Your task to perform on an android device: Go to wifi settings Image 0: 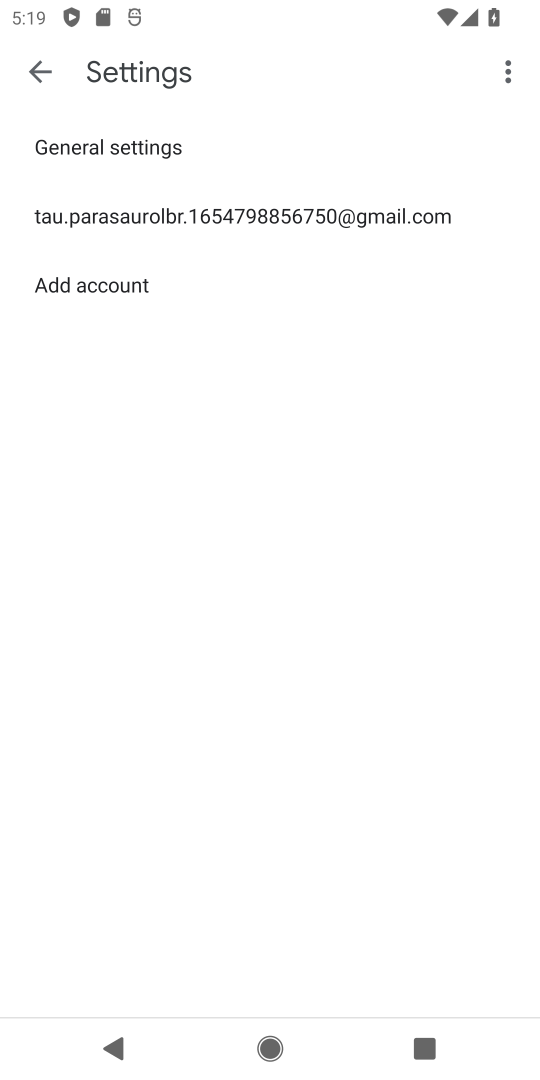
Step 0: press home button
Your task to perform on an android device: Go to wifi settings Image 1: 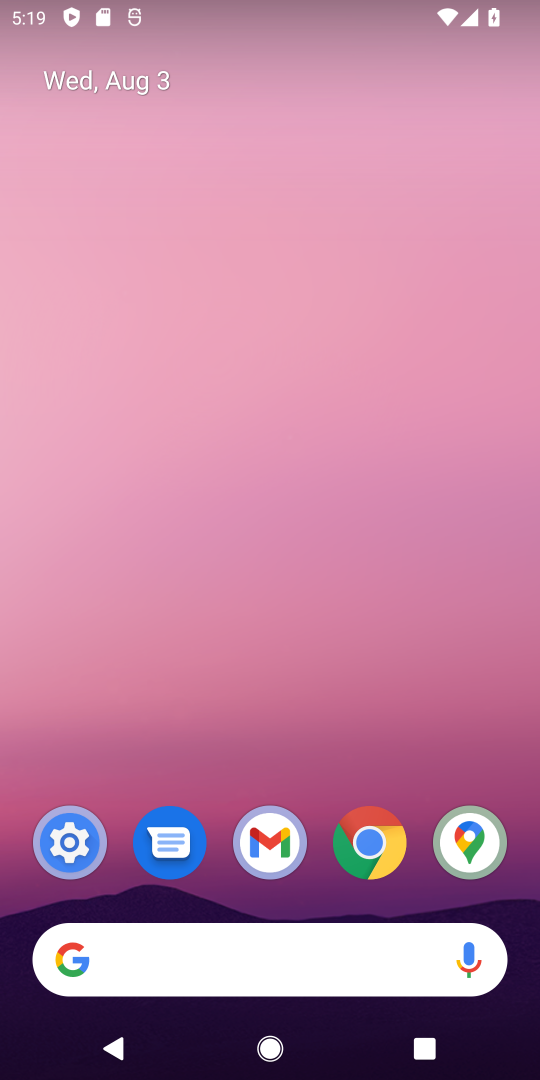
Step 1: click (77, 828)
Your task to perform on an android device: Go to wifi settings Image 2: 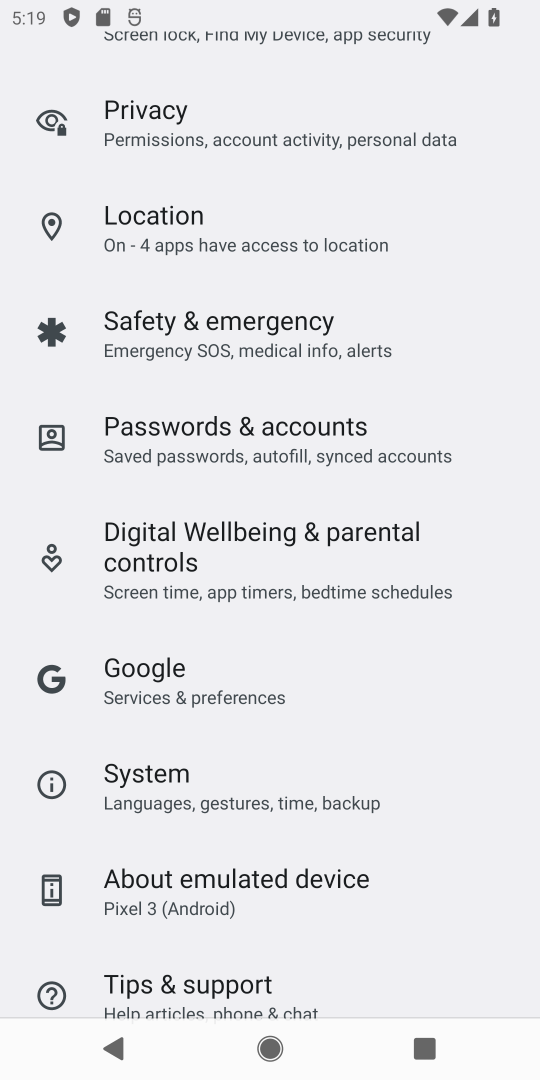
Step 2: drag from (348, 353) to (284, 1071)
Your task to perform on an android device: Go to wifi settings Image 3: 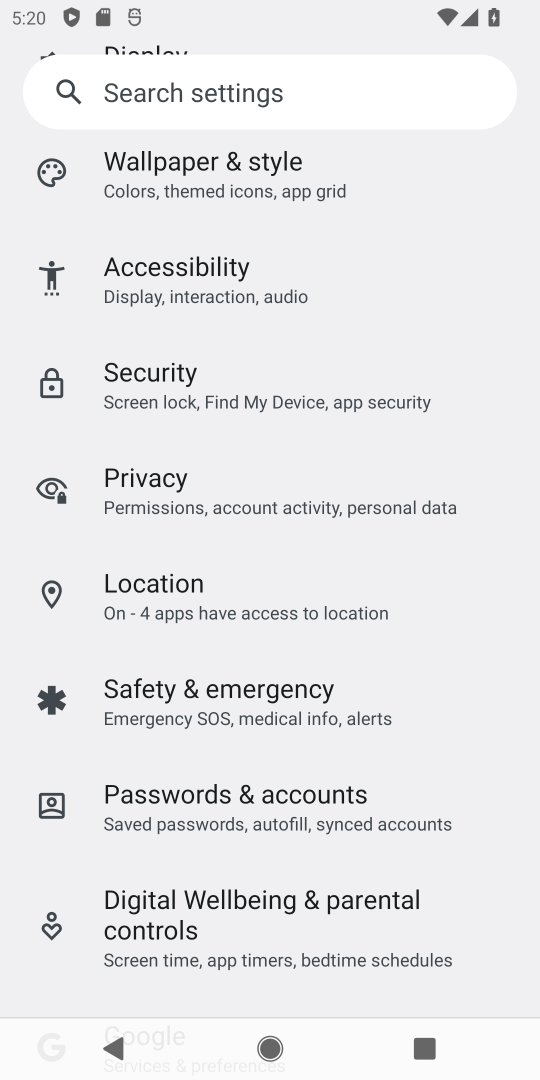
Step 3: drag from (325, 223) to (212, 992)
Your task to perform on an android device: Go to wifi settings Image 4: 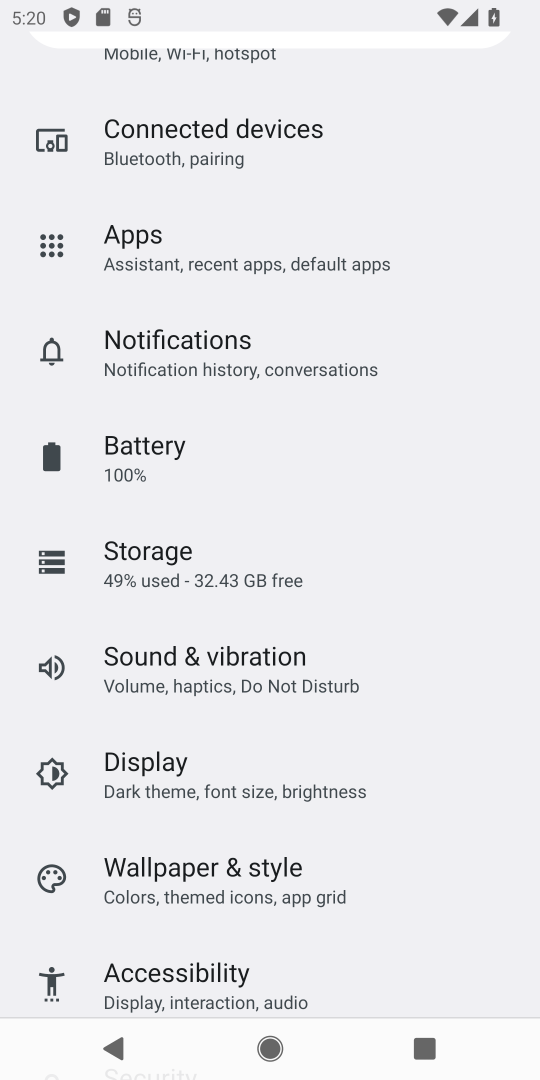
Step 4: drag from (380, 186) to (213, 899)
Your task to perform on an android device: Go to wifi settings Image 5: 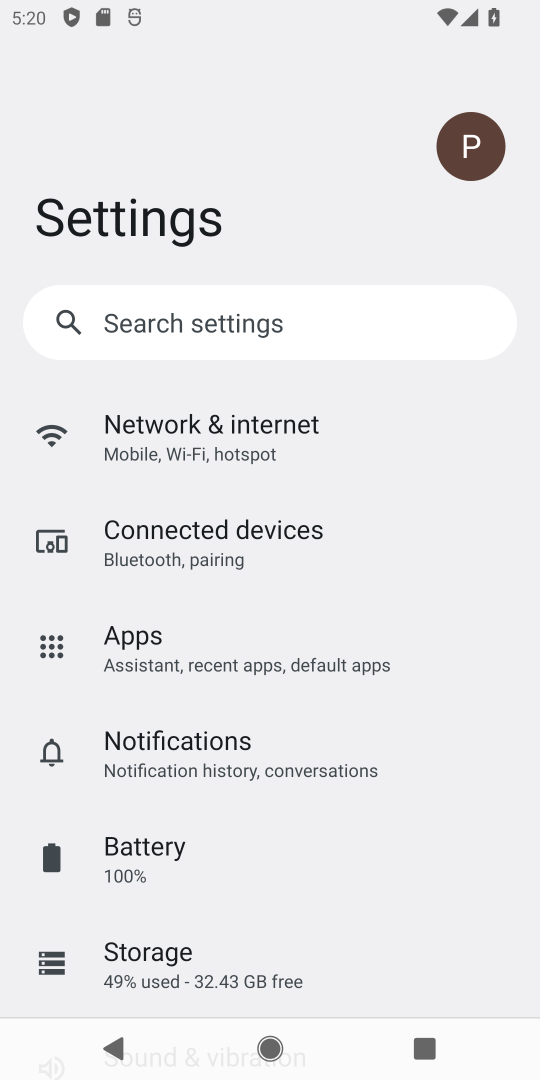
Step 5: click (294, 436)
Your task to perform on an android device: Go to wifi settings Image 6: 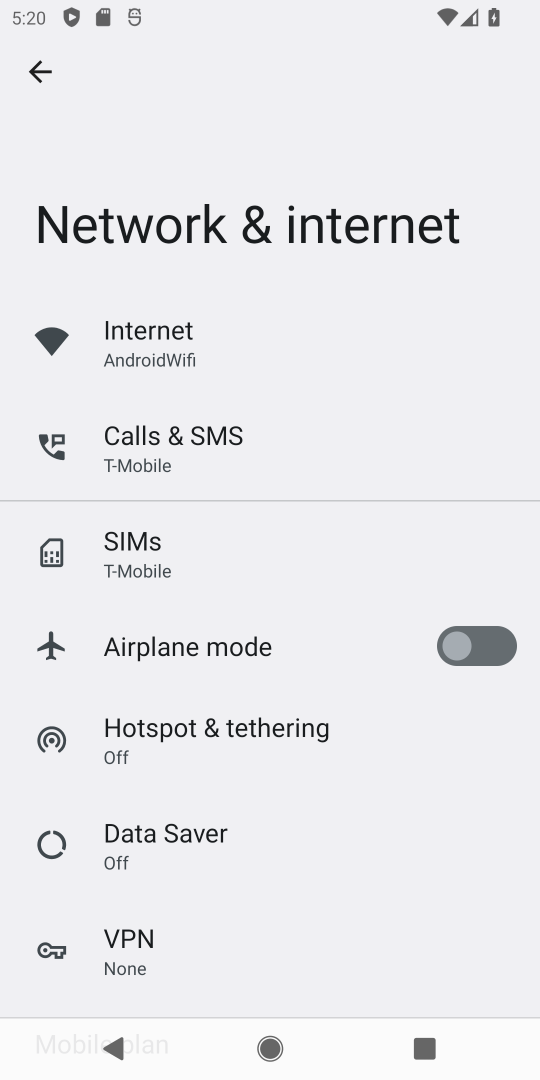
Step 6: click (305, 355)
Your task to perform on an android device: Go to wifi settings Image 7: 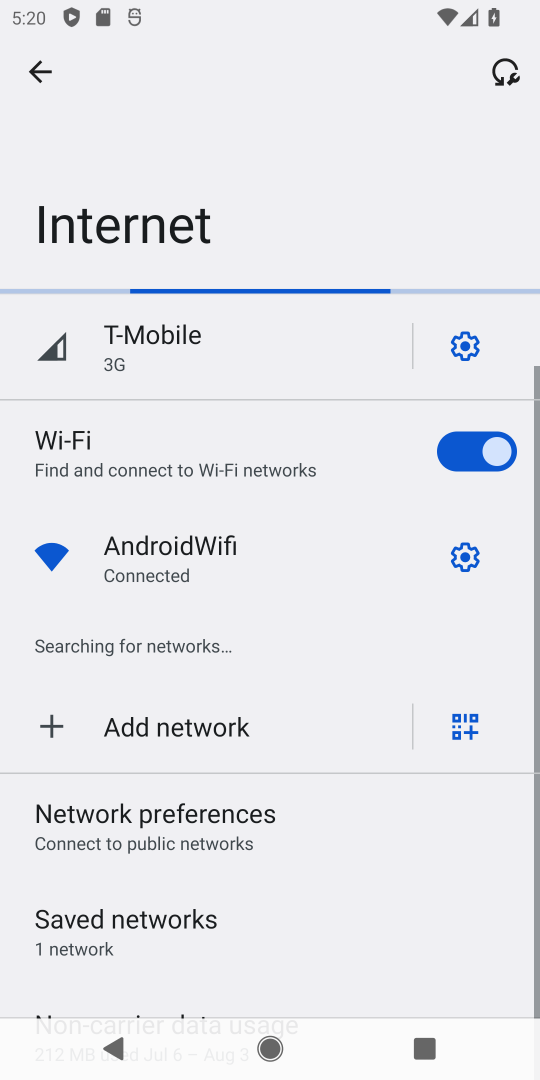
Step 7: click (467, 341)
Your task to perform on an android device: Go to wifi settings Image 8: 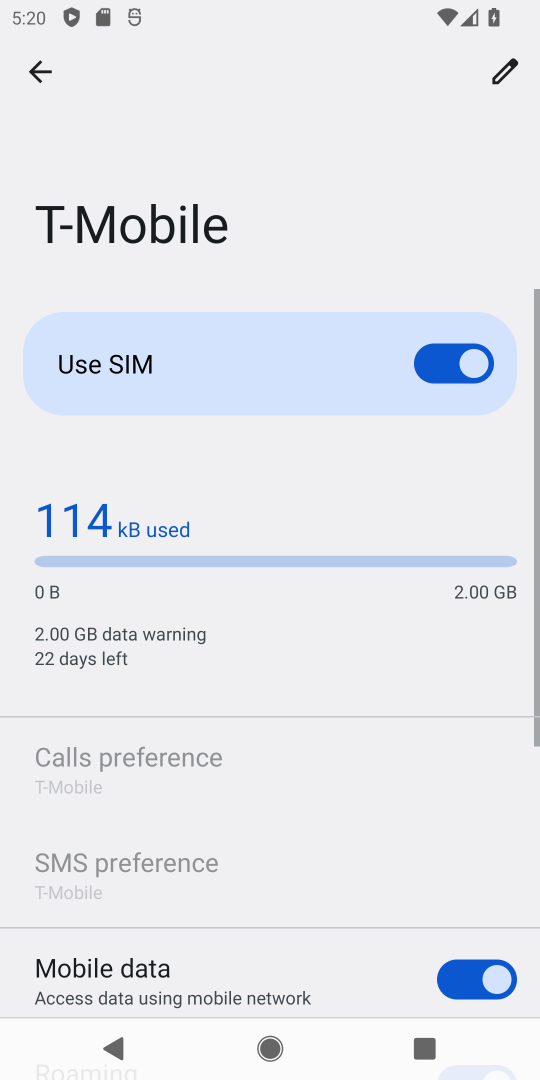
Step 8: task complete